Your task to perform on an android device: snooze an email in the gmail app Image 0: 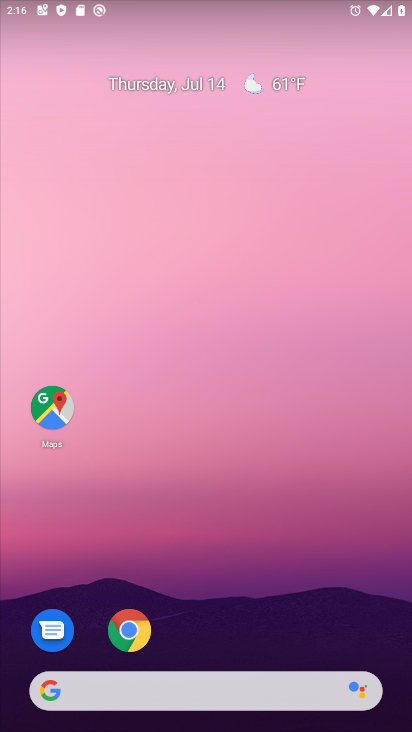
Step 0: press home button
Your task to perform on an android device: snooze an email in the gmail app Image 1: 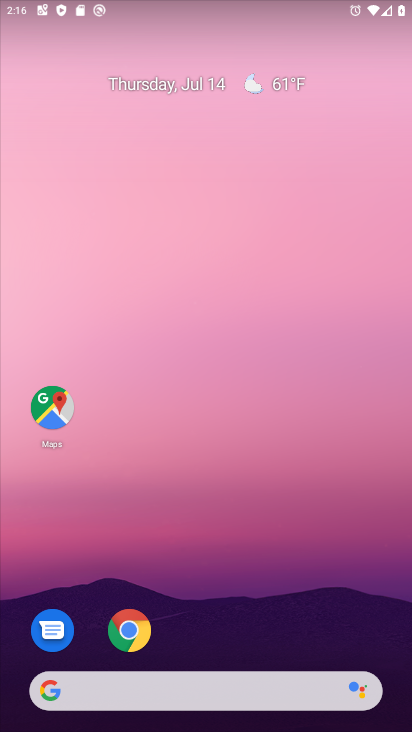
Step 1: drag from (140, 687) to (335, 106)
Your task to perform on an android device: snooze an email in the gmail app Image 2: 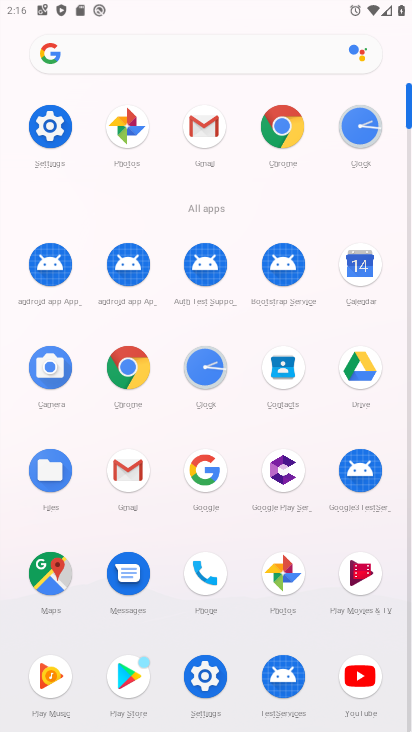
Step 2: click (212, 129)
Your task to perform on an android device: snooze an email in the gmail app Image 3: 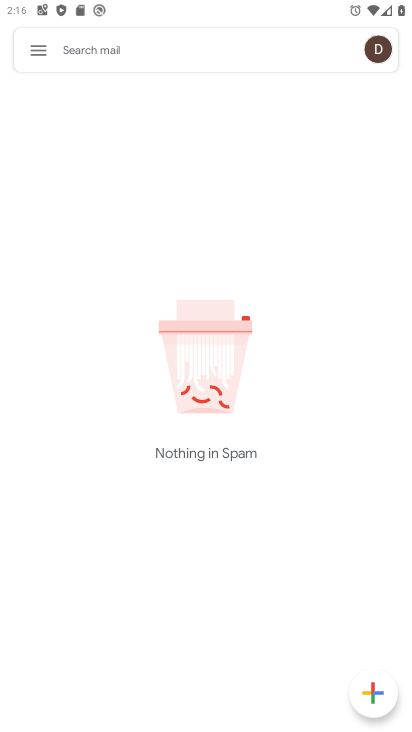
Step 3: click (43, 45)
Your task to perform on an android device: snooze an email in the gmail app Image 4: 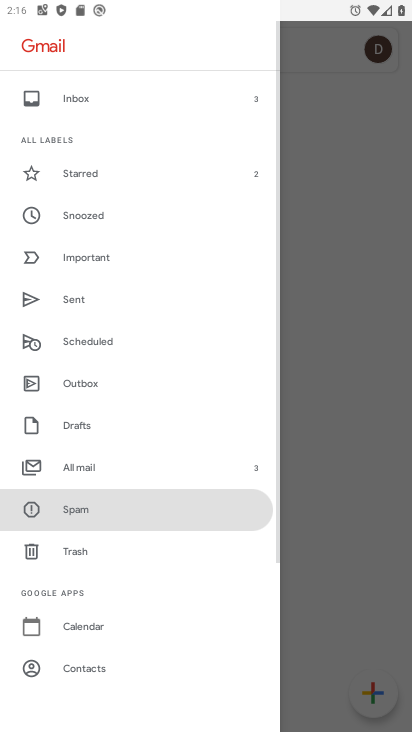
Step 4: drag from (179, 123) to (136, 503)
Your task to perform on an android device: snooze an email in the gmail app Image 5: 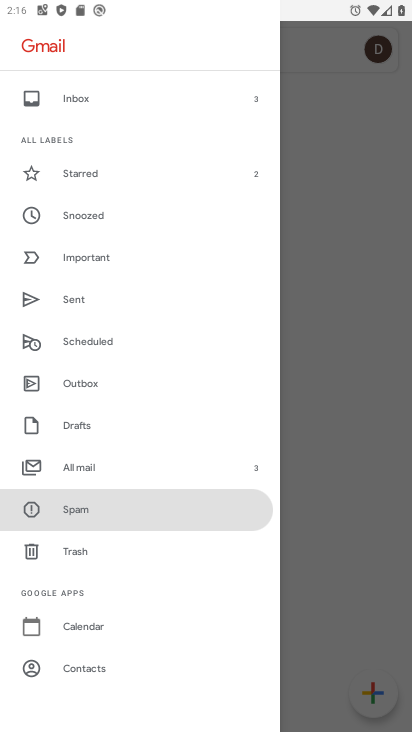
Step 5: click (74, 103)
Your task to perform on an android device: snooze an email in the gmail app Image 6: 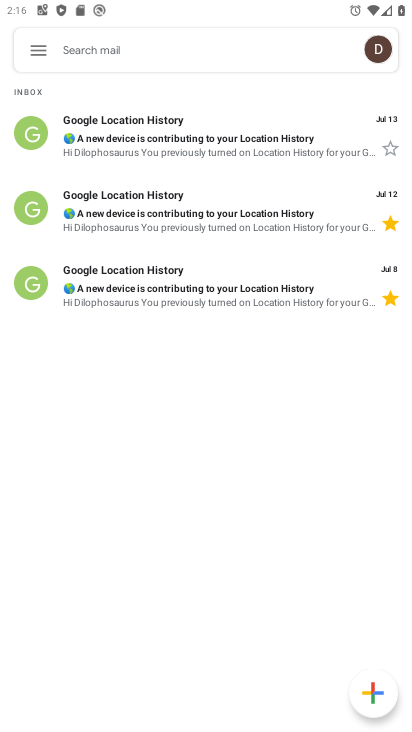
Step 6: click (32, 133)
Your task to perform on an android device: snooze an email in the gmail app Image 7: 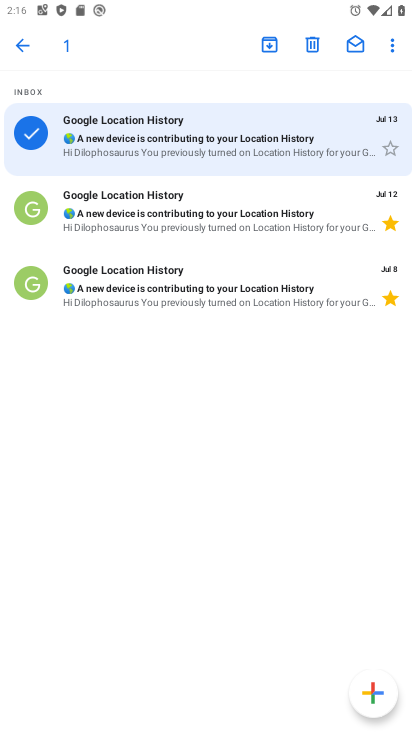
Step 7: click (393, 44)
Your task to perform on an android device: snooze an email in the gmail app Image 8: 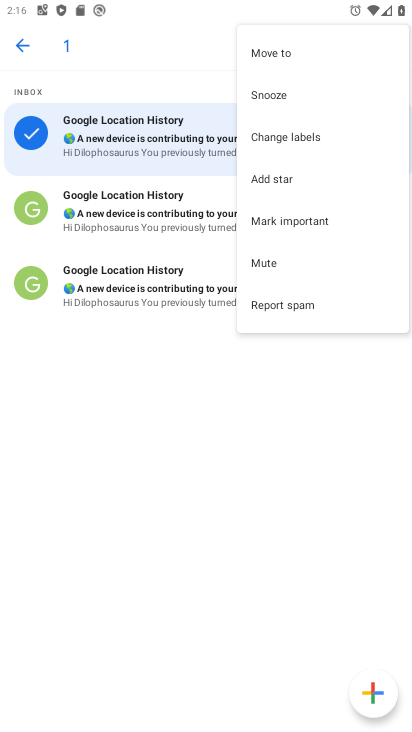
Step 8: click (274, 98)
Your task to perform on an android device: snooze an email in the gmail app Image 9: 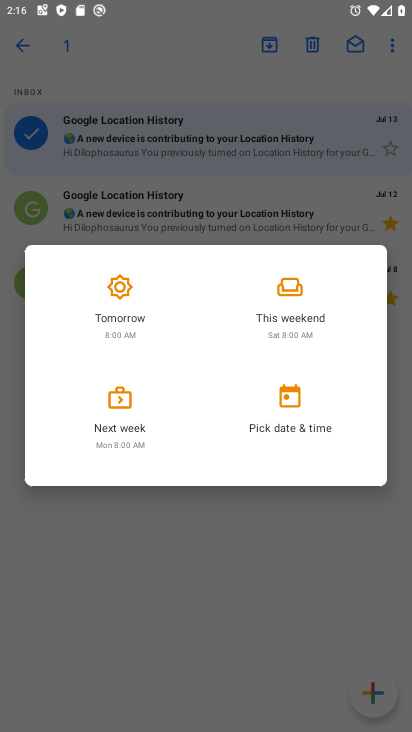
Step 9: click (119, 327)
Your task to perform on an android device: snooze an email in the gmail app Image 10: 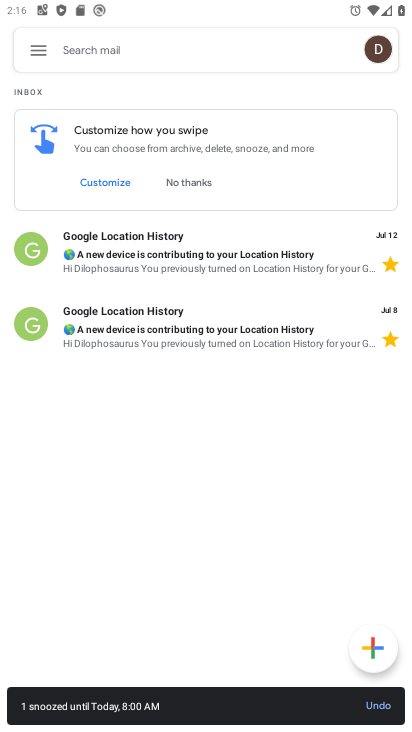
Step 10: task complete